Your task to perform on an android device: What's the news in Pakistan? Image 0: 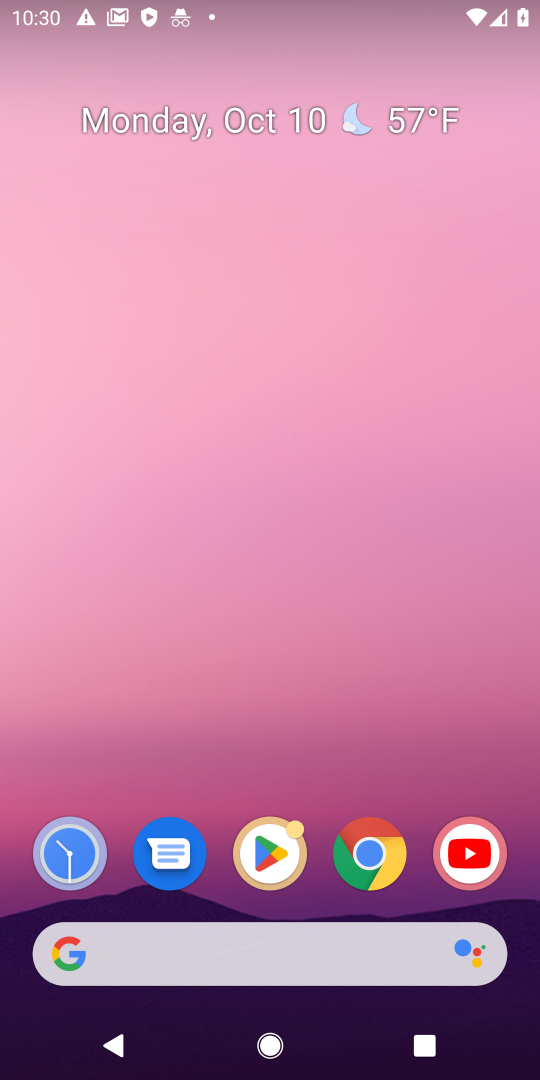
Step 0: press home button
Your task to perform on an android device: What's the news in Pakistan? Image 1: 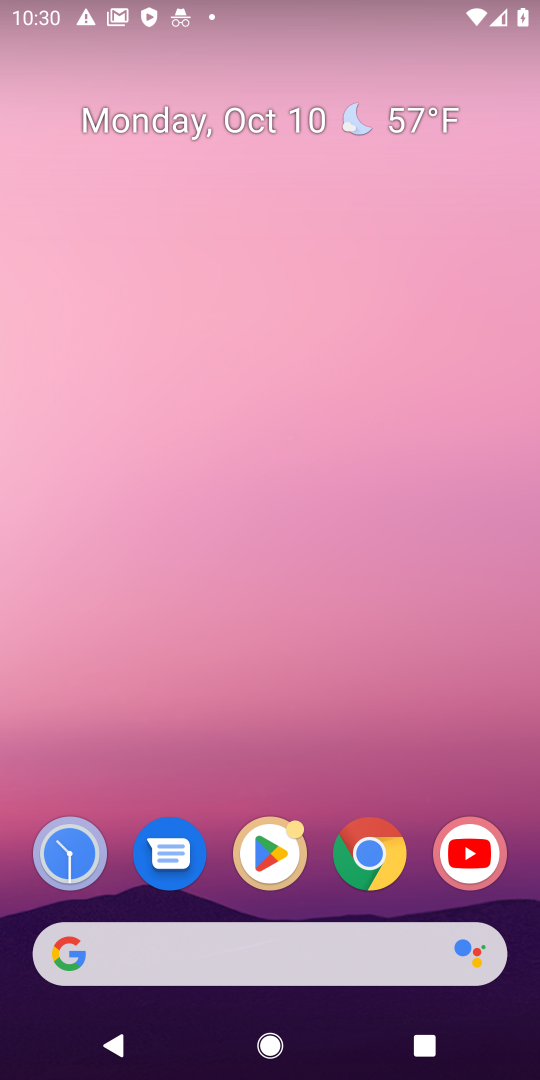
Step 1: click (252, 959)
Your task to perform on an android device: What's the news in Pakistan? Image 2: 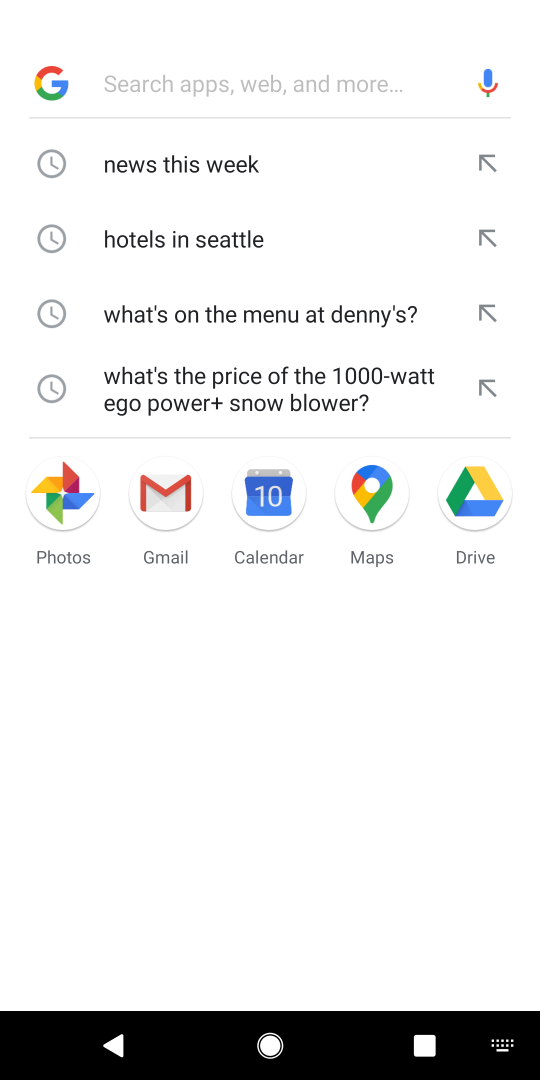
Step 2: type "What's the news in Pakistan"
Your task to perform on an android device: What's the news in Pakistan? Image 3: 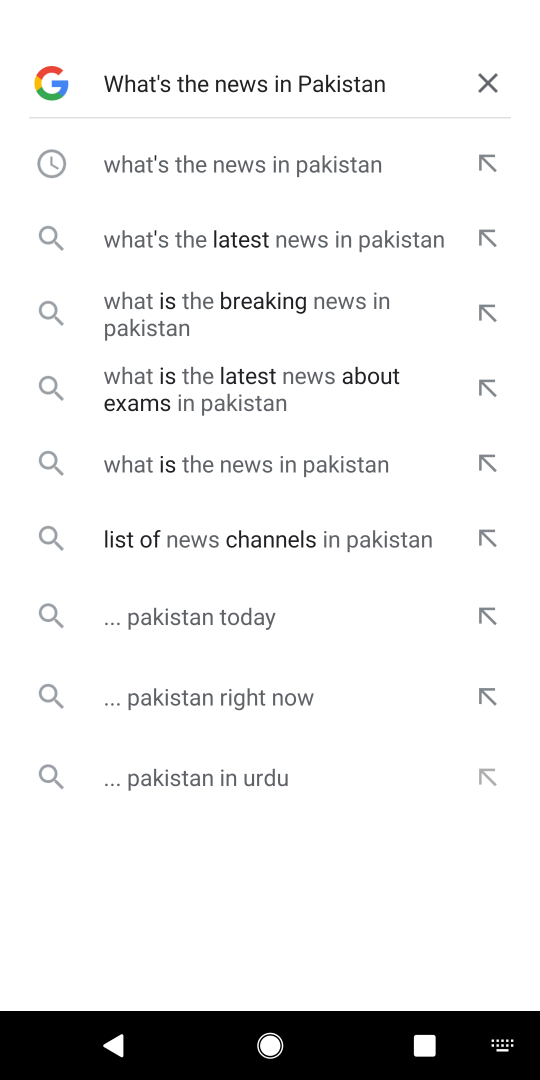
Step 3: press enter
Your task to perform on an android device: What's the news in Pakistan? Image 4: 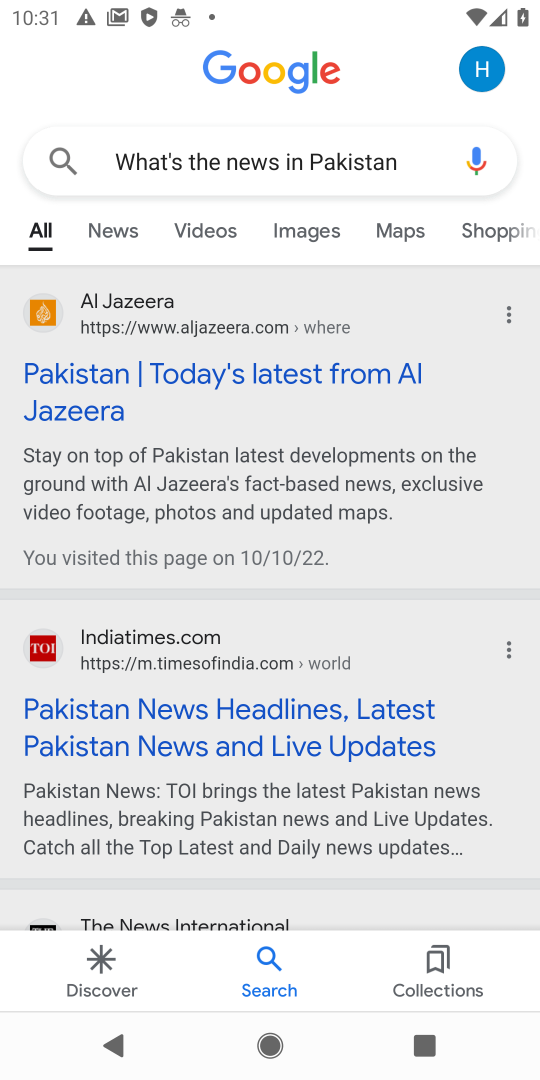
Step 4: click (251, 726)
Your task to perform on an android device: What's the news in Pakistan? Image 5: 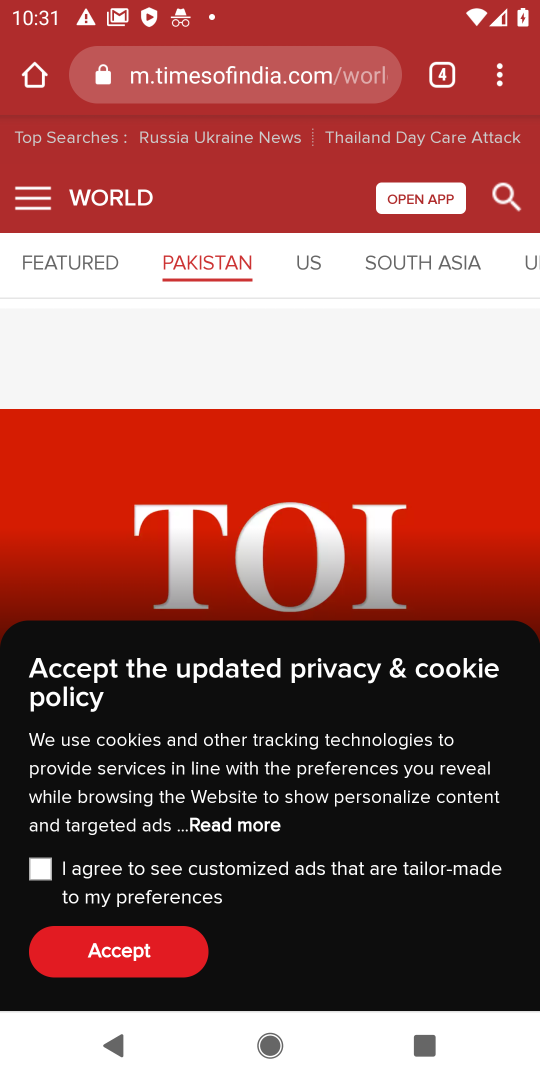
Step 5: click (130, 953)
Your task to perform on an android device: What's the news in Pakistan? Image 6: 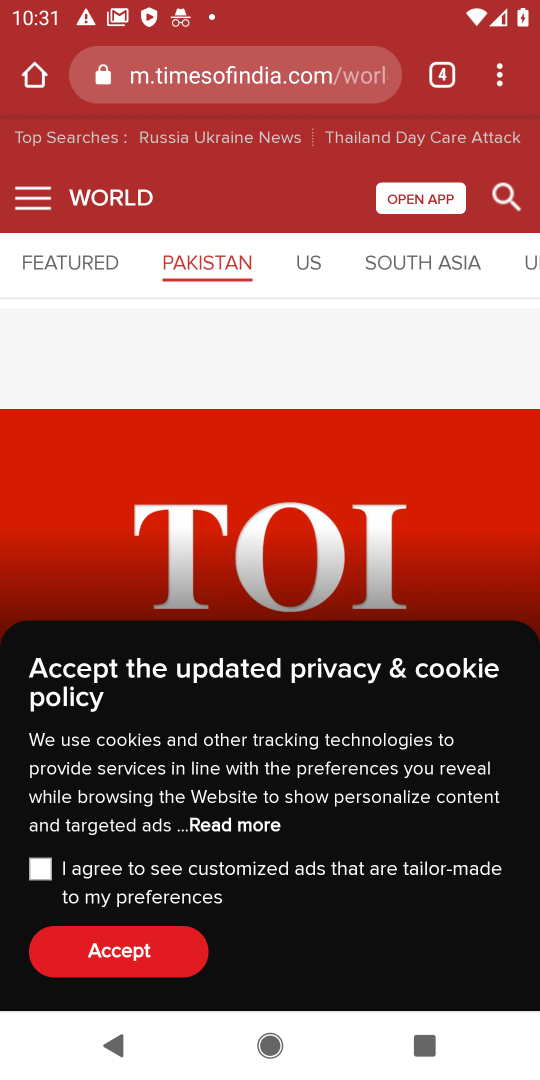
Step 6: click (33, 863)
Your task to perform on an android device: What's the news in Pakistan? Image 7: 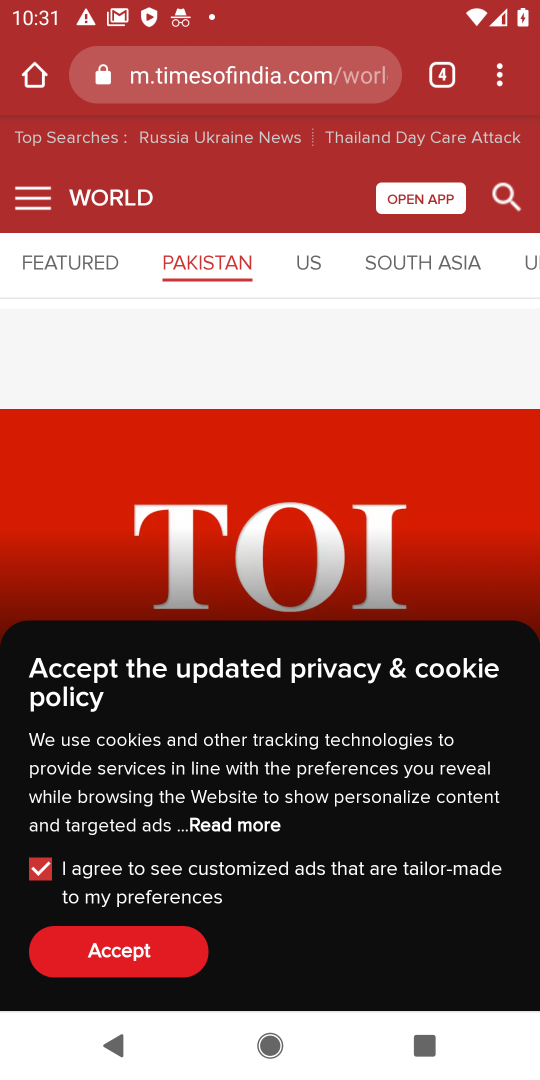
Step 7: click (143, 958)
Your task to perform on an android device: What's the news in Pakistan? Image 8: 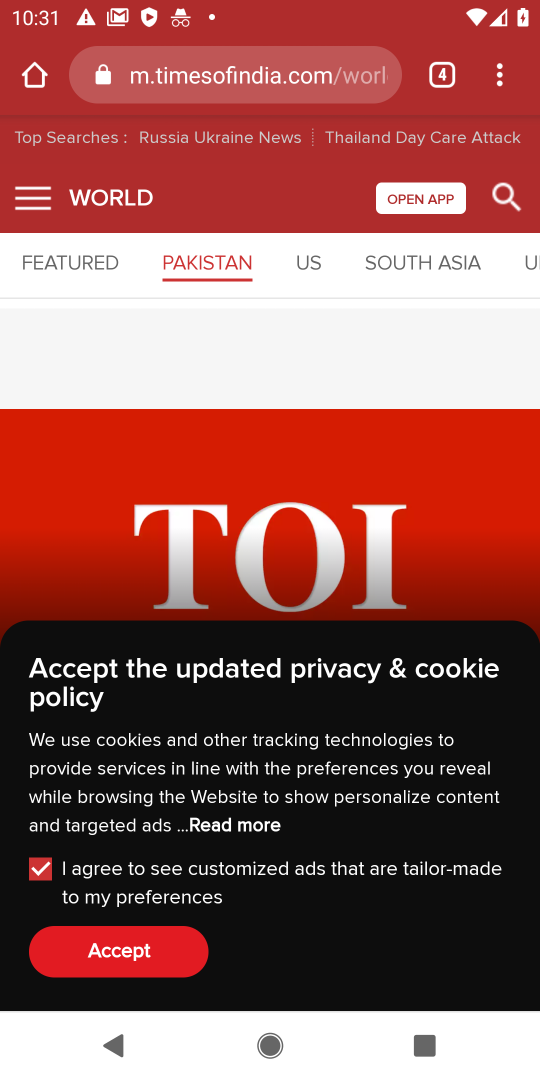
Step 8: task complete